Your task to perform on an android device: open app "Google Home" Image 0: 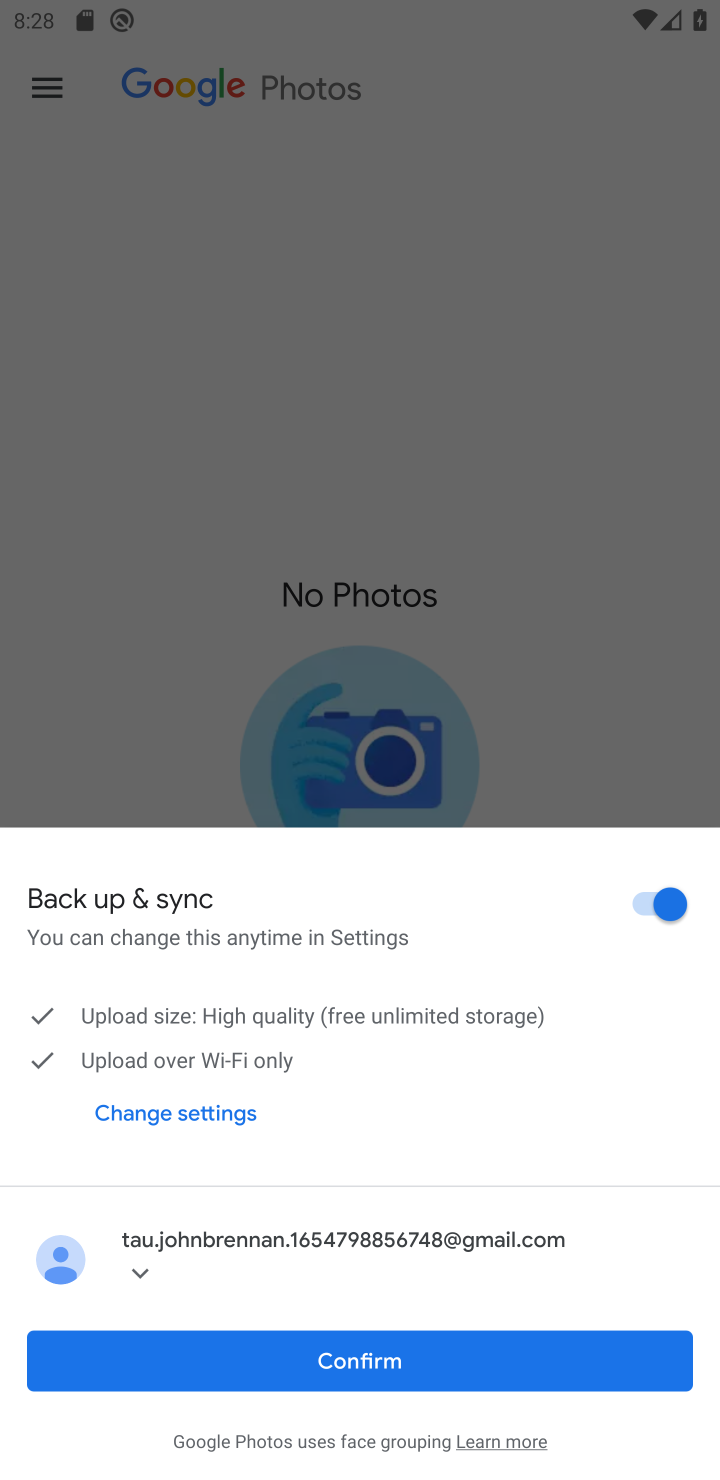
Step 0: press home button
Your task to perform on an android device: open app "Google Home" Image 1: 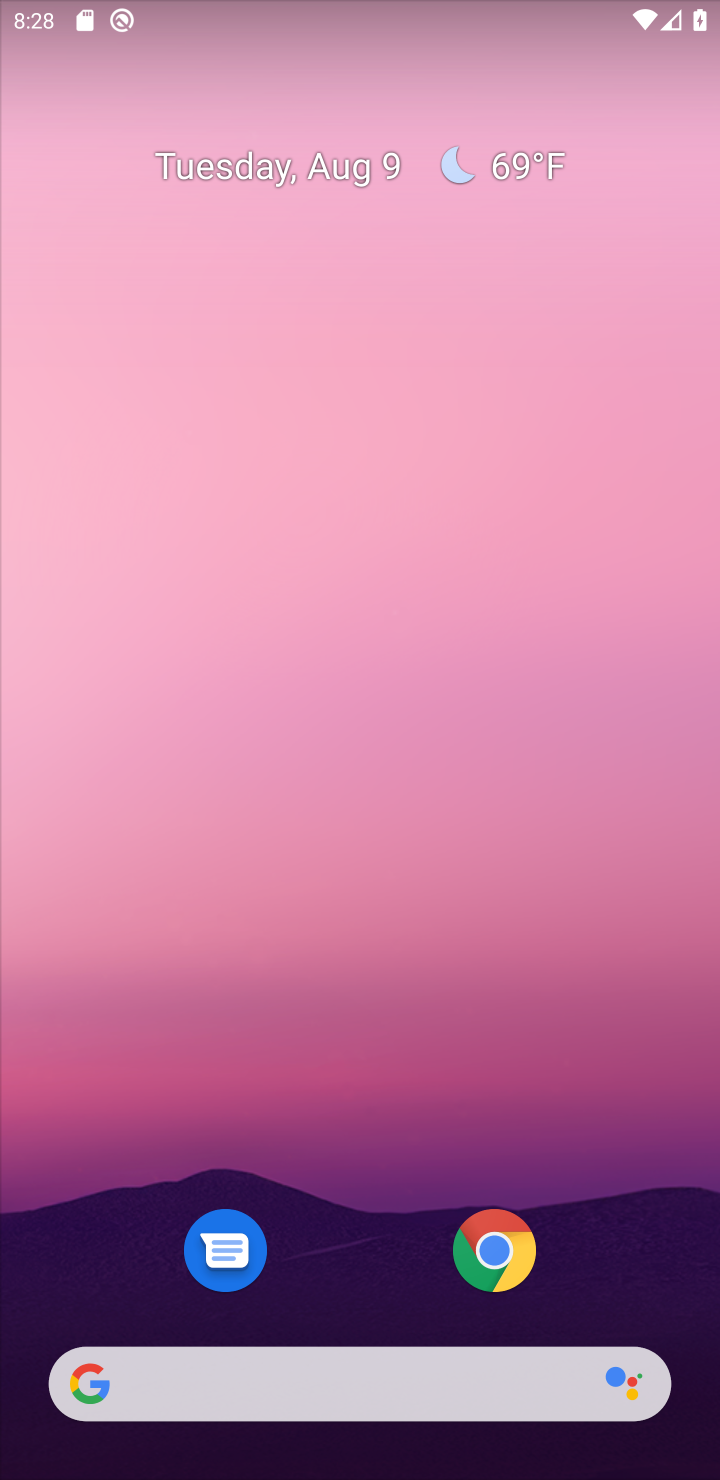
Step 1: drag from (514, 189) to (507, 8)
Your task to perform on an android device: open app "Google Home" Image 2: 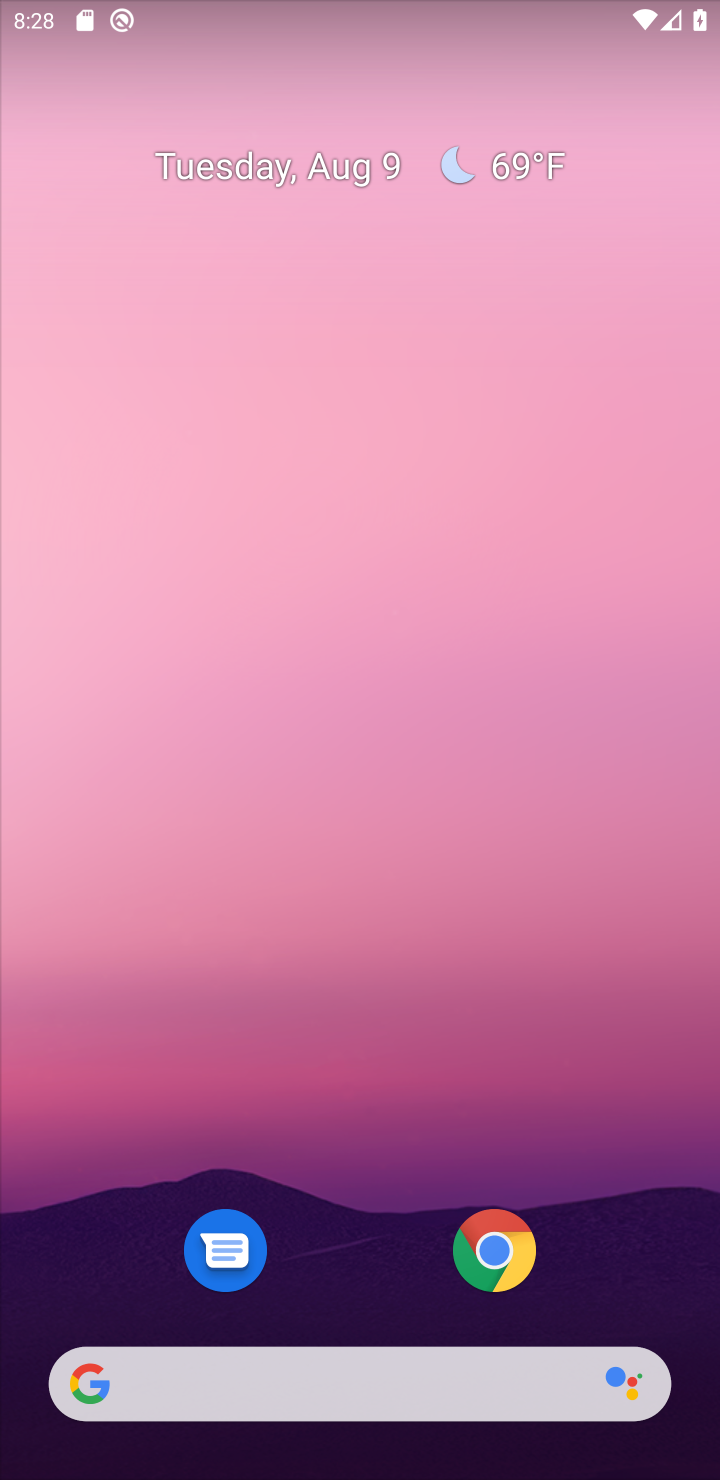
Step 2: drag from (697, 1428) to (486, 109)
Your task to perform on an android device: open app "Google Home" Image 3: 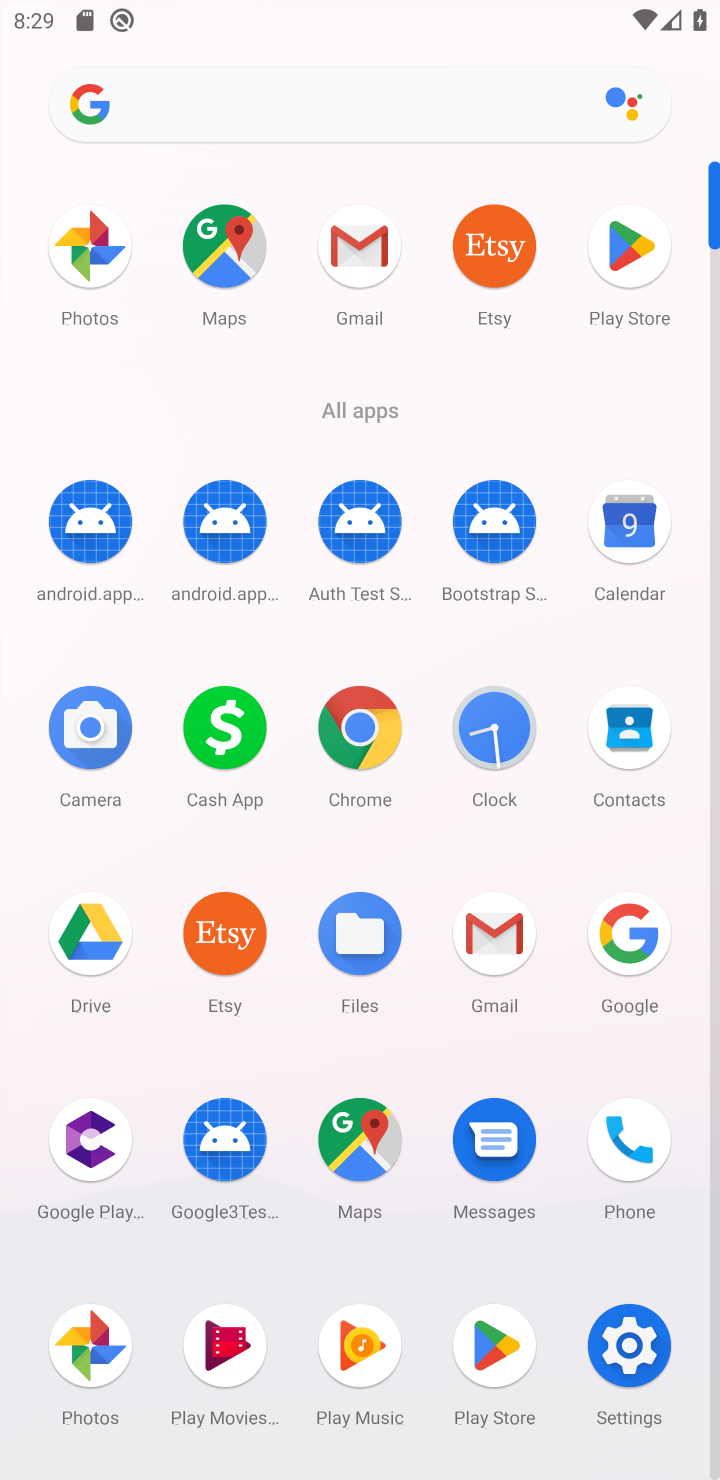
Step 3: click (634, 932)
Your task to perform on an android device: open app "Google Home" Image 4: 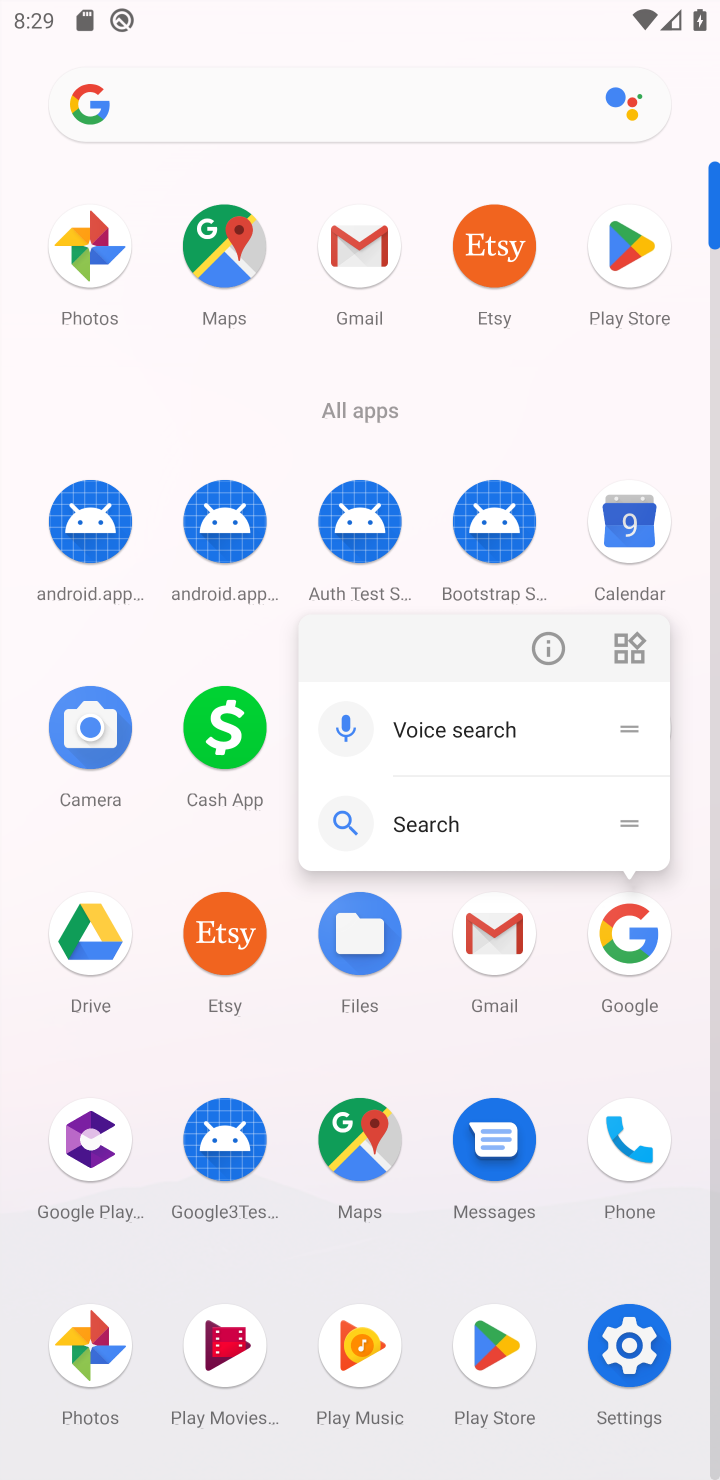
Step 4: click (634, 932)
Your task to perform on an android device: open app "Google Home" Image 5: 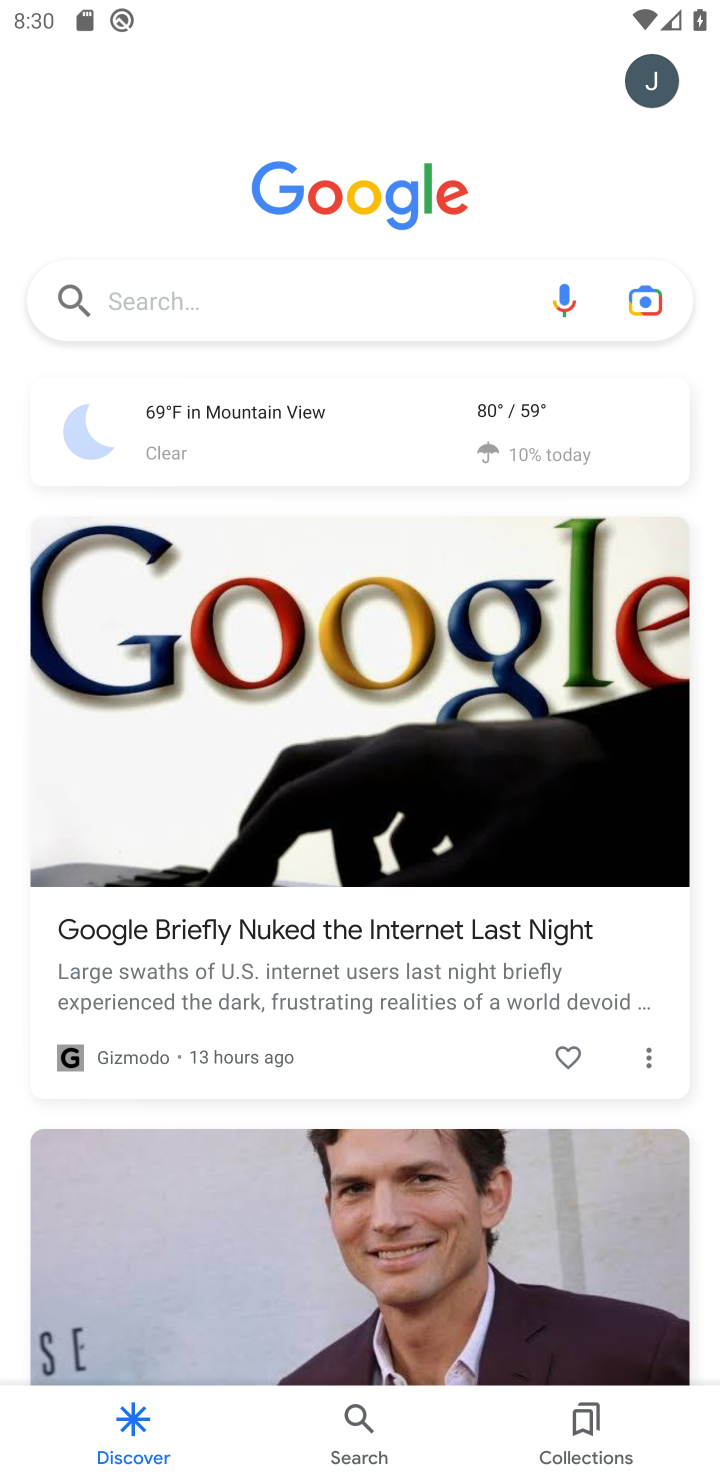
Step 5: task complete